Your task to perform on an android device: Open the calendar app, open the side menu, and click the "Day" option Image 0: 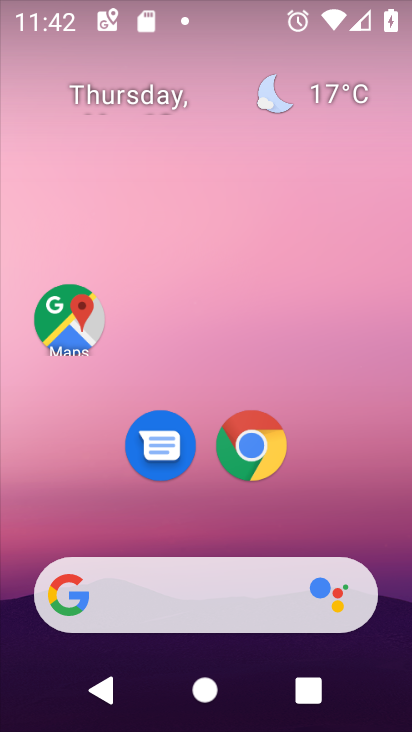
Step 0: drag from (335, 503) to (309, 229)
Your task to perform on an android device: Open the calendar app, open the side menu, and click the "Day" option Image 1: 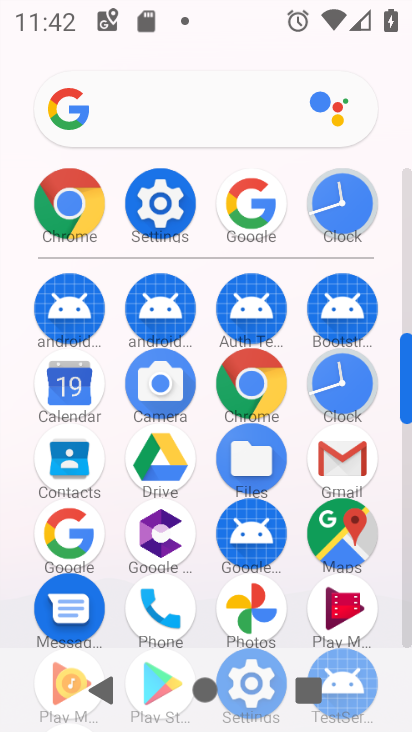
Step 1: click (77, 397)
Your task to perform on an android device: Open the calendar app, open the side menu, and click the "Day" option Image 2: 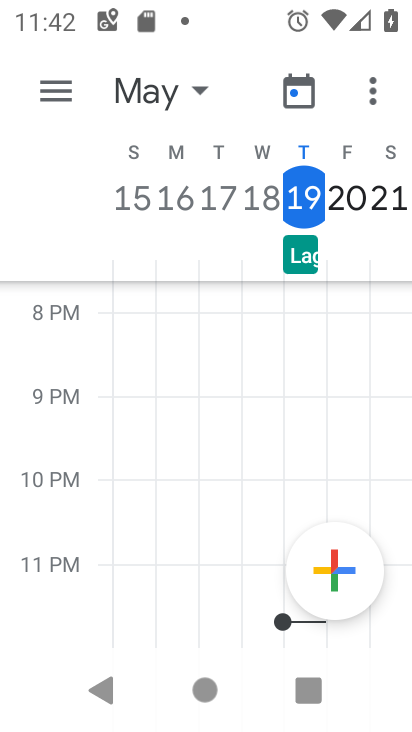
Step 2: click (51, 105)
Your task to perform on an android device: Open the calendar app, open the side menu, and click the "Day" option Image 3: 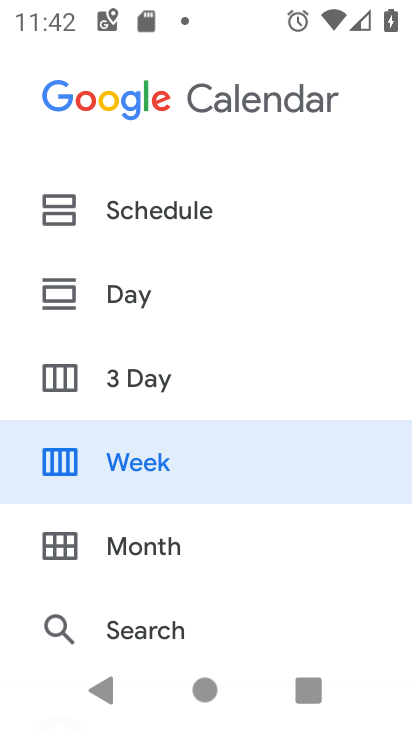
Step 3: click (148, 304)
Your task to perform on an android device: Open the calendar app, open the side menu, and click the "Day" option Image 4: 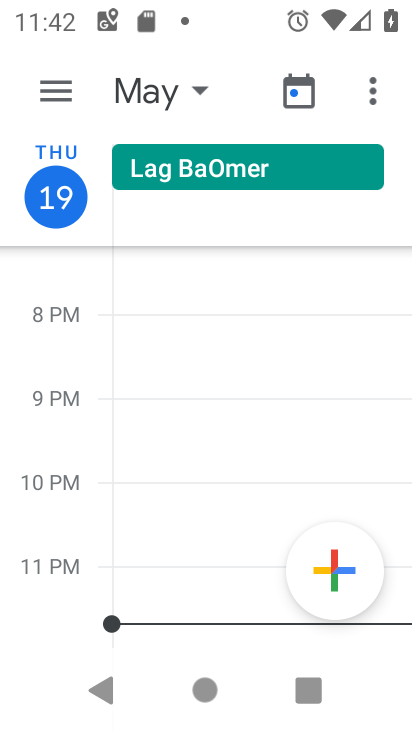
Step 4: task complete